Your task to perform on an android device: turn off translation in the chrome app Image 0: 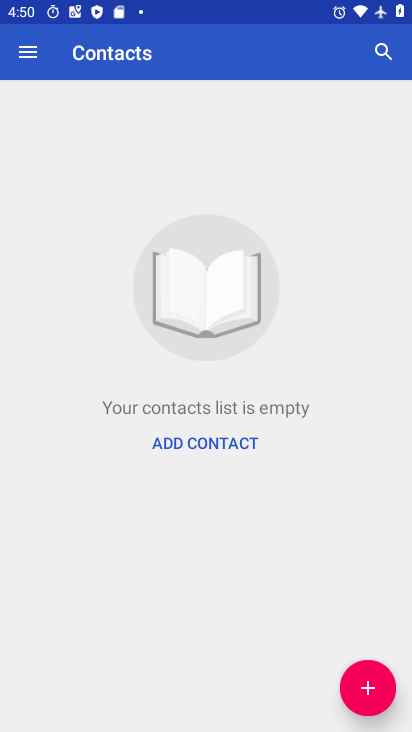
Step 0: press back button
Your task to perform on an android device: turn off translation in the chrome app Image 1: 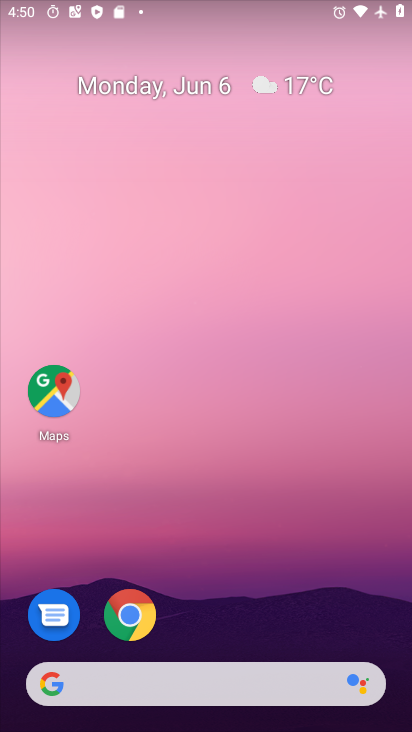
Step 1: drag from (284, 572) to (210, 24)
Your task to perform on an android device: turn off translation in the chrome app Image 2: 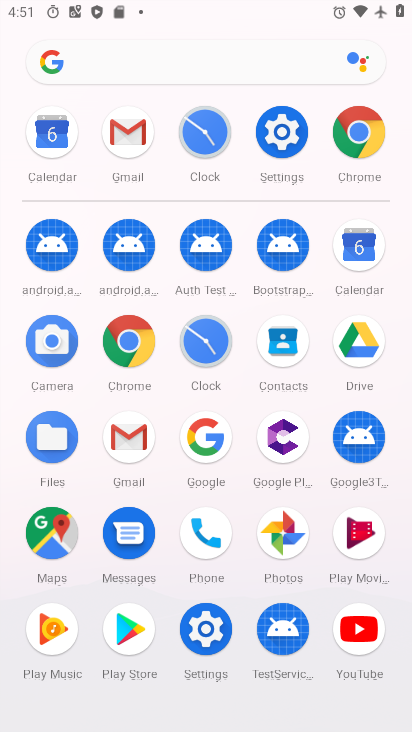
Step 2: click (129, 337)
Your task to perform on an android device: turn off translation in the chrome app Image 3: 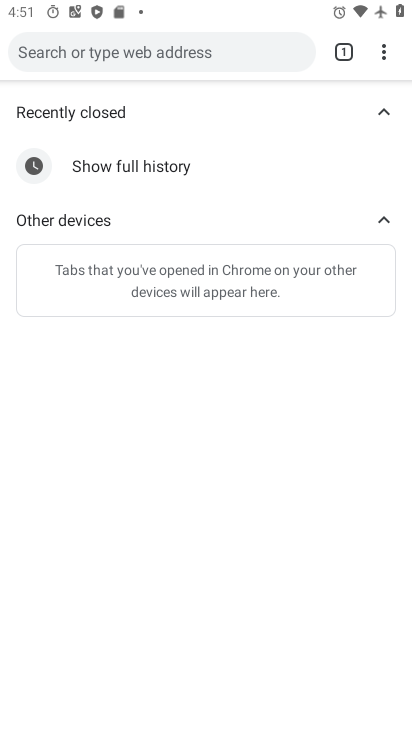
Step 3: drag from (385, 48) to (212, 427)
Your task to perform on an android device: turn off translation in the chrome app Image 4: 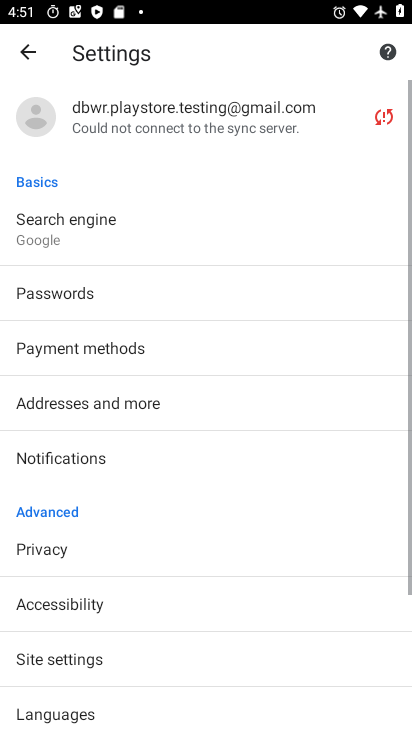
Step 4: drag from (207, 639) to (212, 193)
Your task to perform on an android device: turn off translation in the chrome app Image 5: 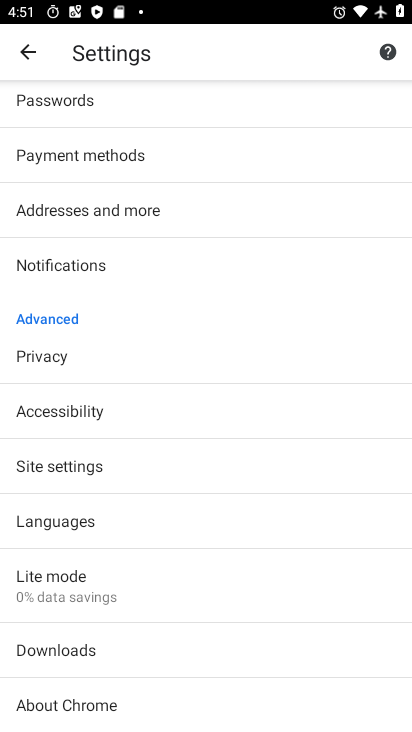
Step 5: click (158, 585)
Your task to perform on an android device: turn off translation in the chrome app Image 6: 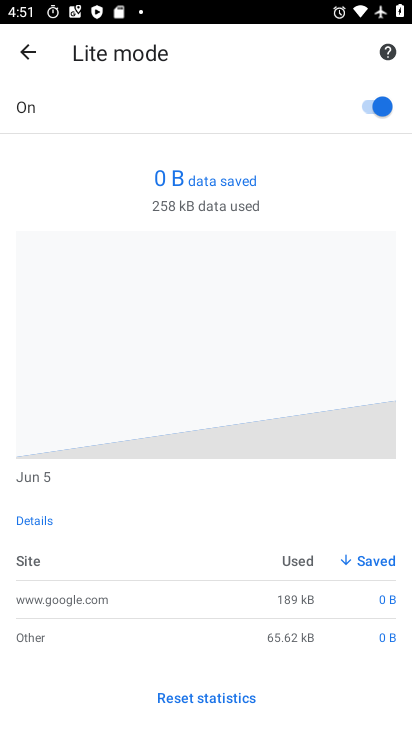
Step 6: click (386, 104)
Your task to perform on an android device: turn off translation in the chrome app Image 7: 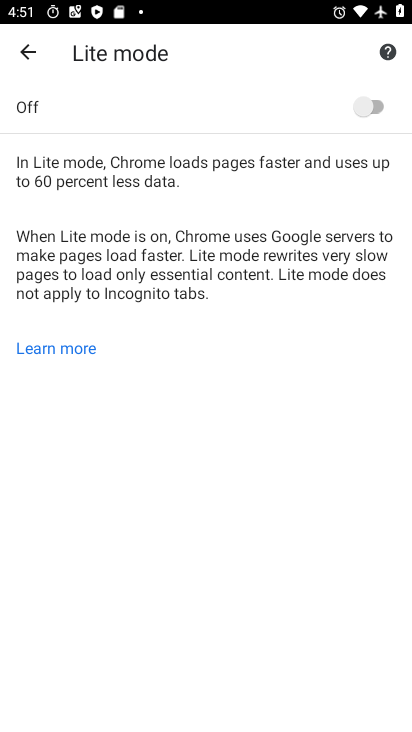
Step 7: task complete